Your task to perform on an android device: What's on my calendar tomorrow? Image 0: 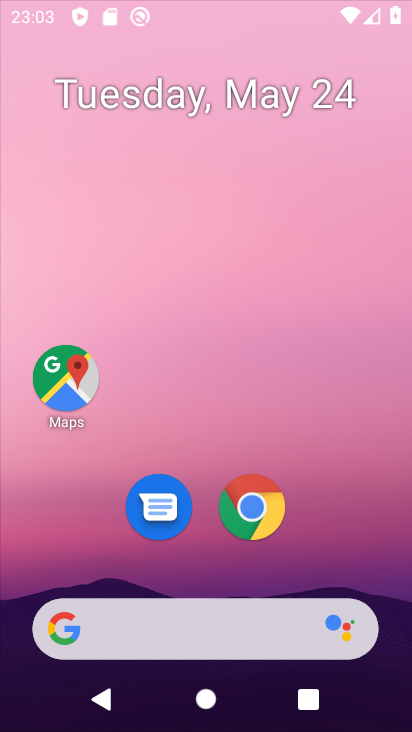
Step 0: drag from (330, 592) to (311, 42)
Your task to perform on an android device: What's on my calendar tomorrow? Image 1: 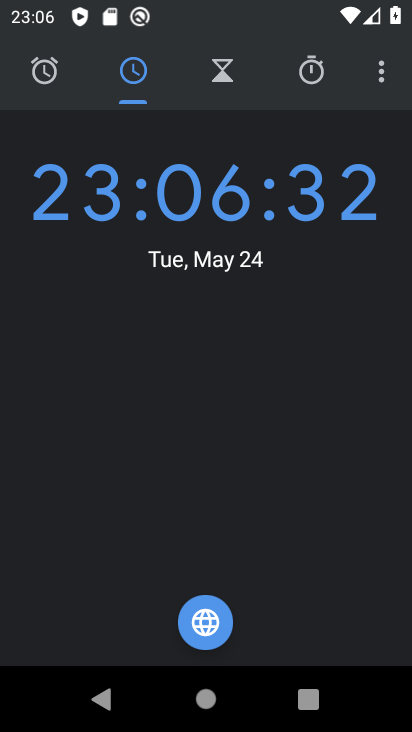
Step 1: press home button
Your task to perform on an android device: What's on my calendar tomorrow? Image 2: 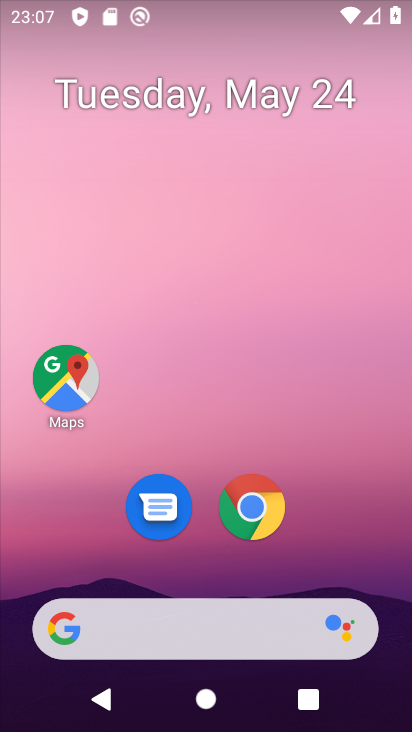
Step 2: drag from (195, 601) to (272, 4)
Your task to perform on an android device: What's on my calendar tomorrow? Image 3: 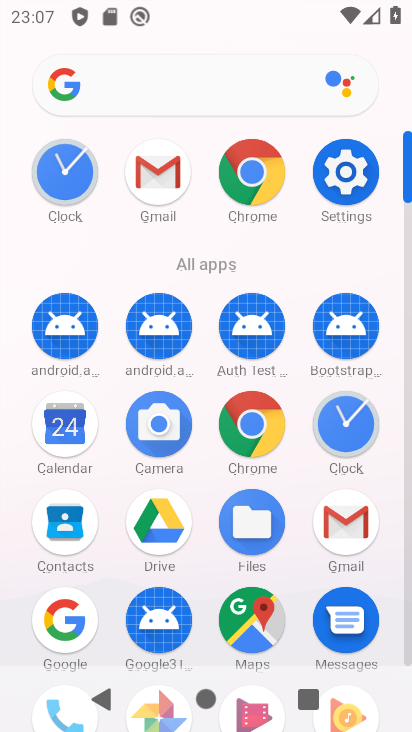
Step 3: click (62, 411)
Your task to perform on an android device: What's on my calendar tomorrow? Image 4: 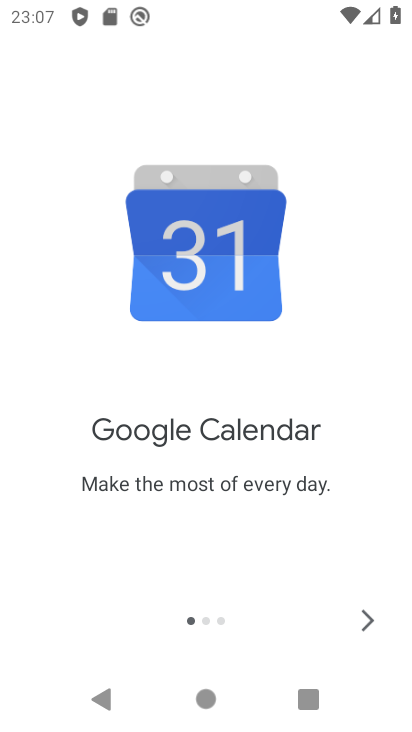
Step 4: click (369, 628)
Your task to perform on an android device: What's on my calendar tomorrow? Image 5: 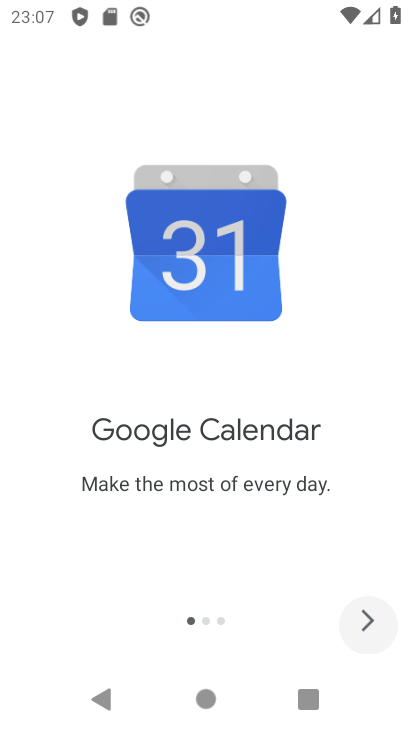
Step 5: click (369, 628)
Your task to perform on an android device: What's on my calendar tomorrow? Image 6: 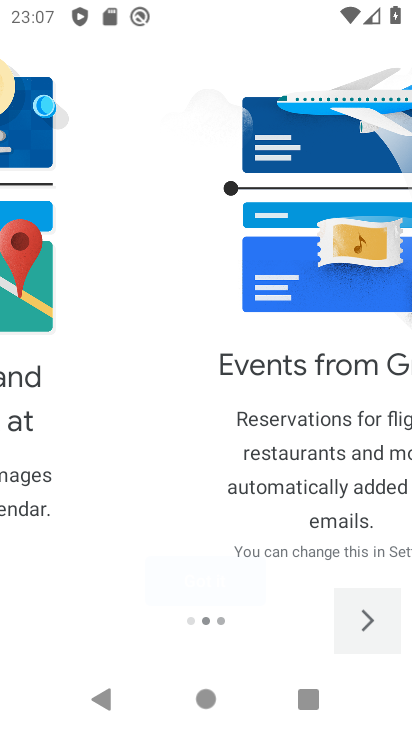
Step 6: click (369, 628)
Your task to perform on an android device: What's on my calendar tomorrow? Image 7: 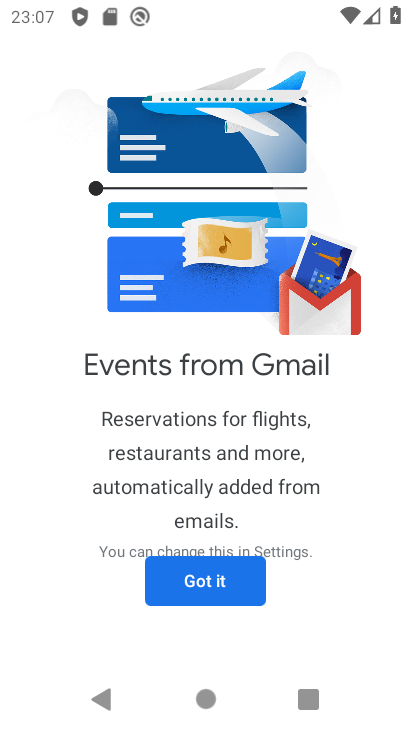
Step 7: click (369, 625)
Your task to perform on an android device: What's on my calendar tomorrow? Image 8: 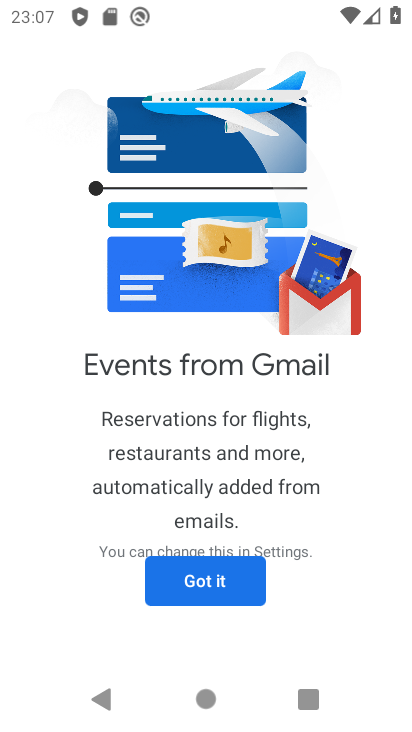
Step 8: click (225, 573)
Your task to perform on an android device: What's on my calendar tomorrow? Image 9: 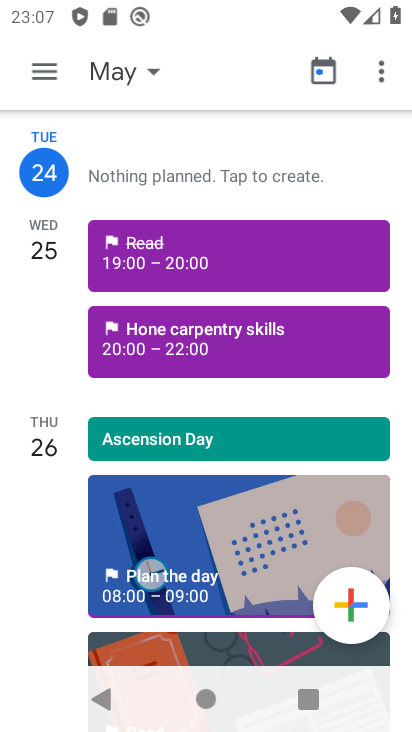
Step 9: task complete